Your task to perform on an android device: toggle sleep mode Image 0: 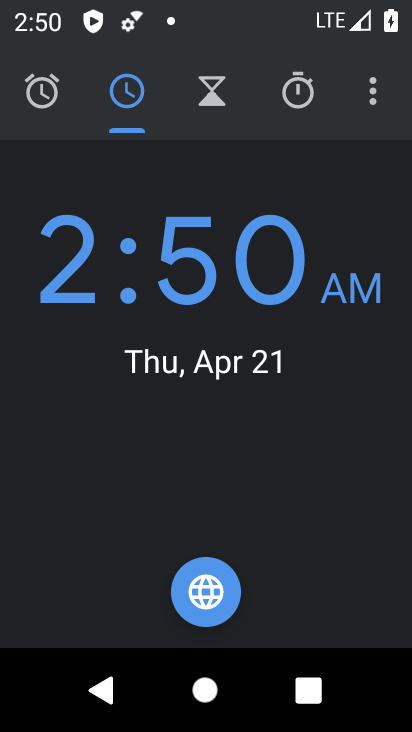
Step 0: press home button
Your task to perform on an android device: toggle sleep mode Image 1: 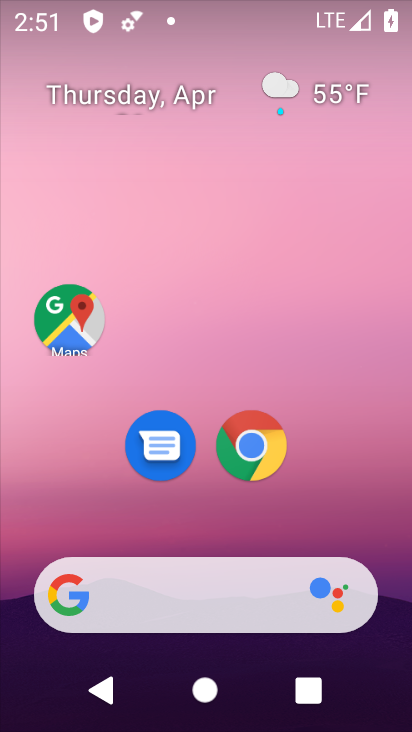
Step 1: drag from (280, 502) to (286, 40)
Your task to perform on an android device: toggle sleep mode Image 2: 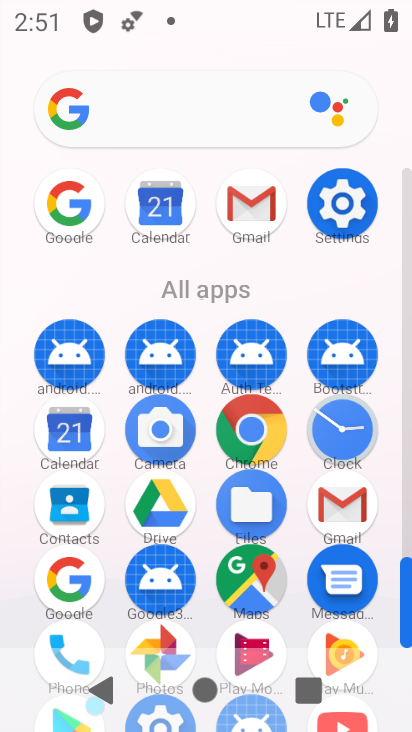
Step 2: click (347, 207)
Your task to perform on an android device: toggle sleep mode Image 3: 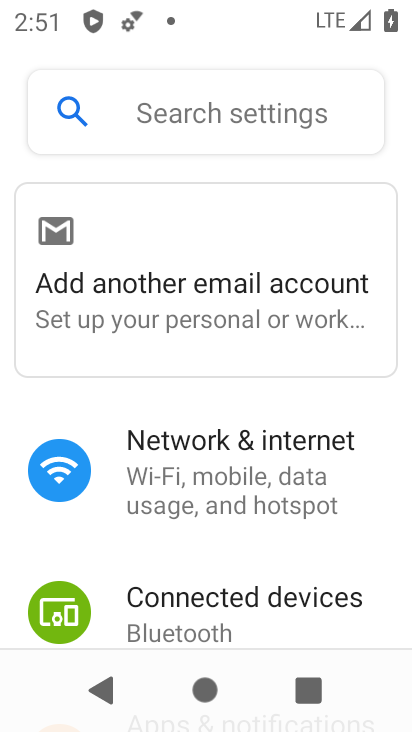
Step 3: drag from (231, 544) to (267, 413)
Your task to perform on an android device: toggle sleep mode Image 4: 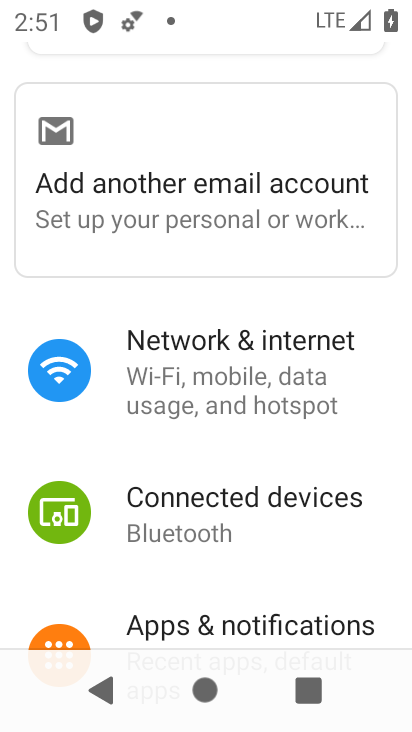
Step 4: drag from (234, 563) to (280, 415)
Your task to perform on an android device: toggle sleep mode Image 5: 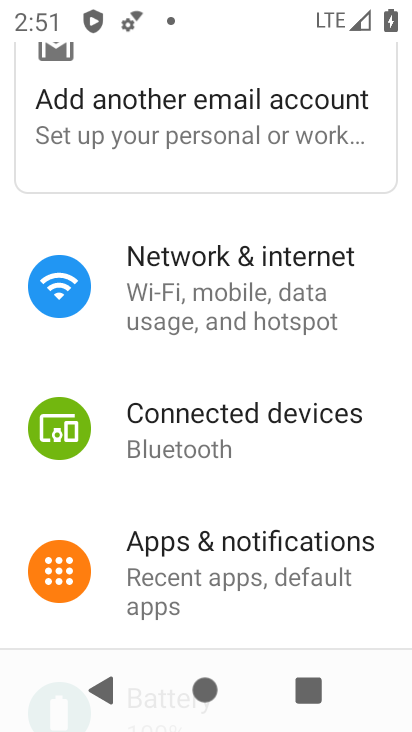
Step 5: drag from (232, 604) to (288, 465)
Your task to perform on an android device: toggle sleep mode Image 6: 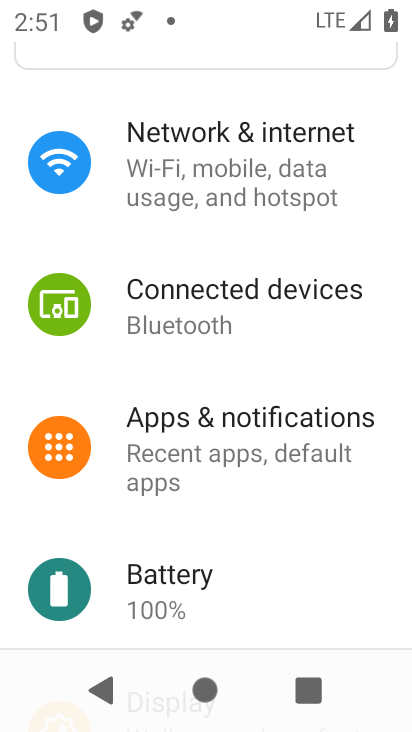
Step 6: drag from (242, 575) to (304, 436)
Your task to perform on an android device: toggle sleep mode Image 7: 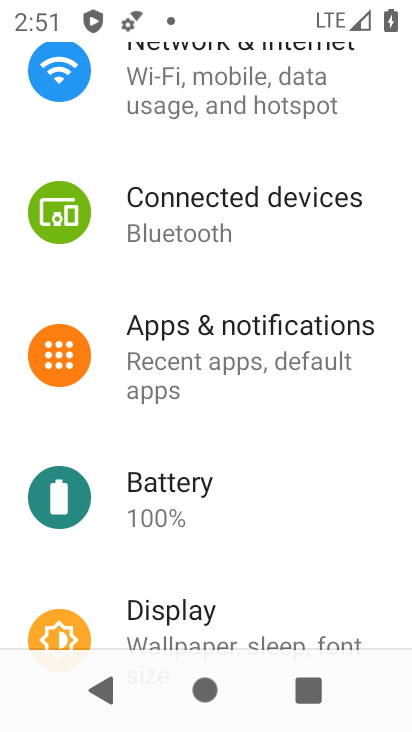
Step 7: drag from (252, 556) to (326, 440)
Your task to perform on an android device: toggle sleep mode Image 8: 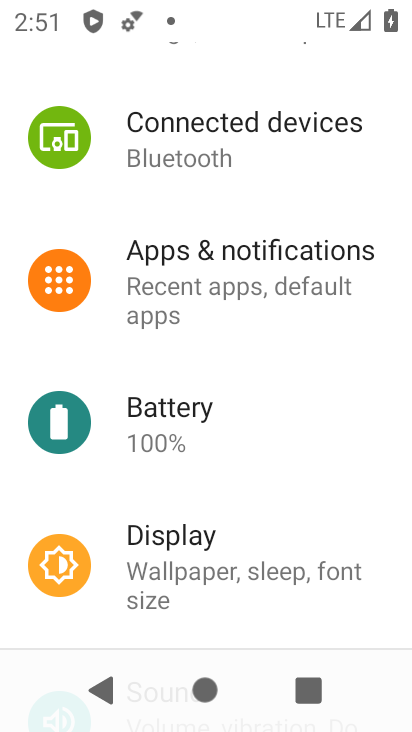
Step 8: drag from (258, 621) to (316, 478)
Your task to perform on an android device: toggle sleep mode Image 9: 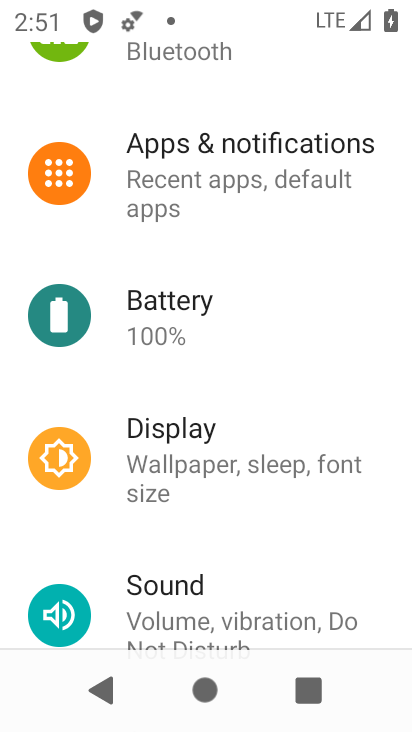
Step 9: click (268, 462)
Your task to perform on an android device: toggle sleep mode Image 10: 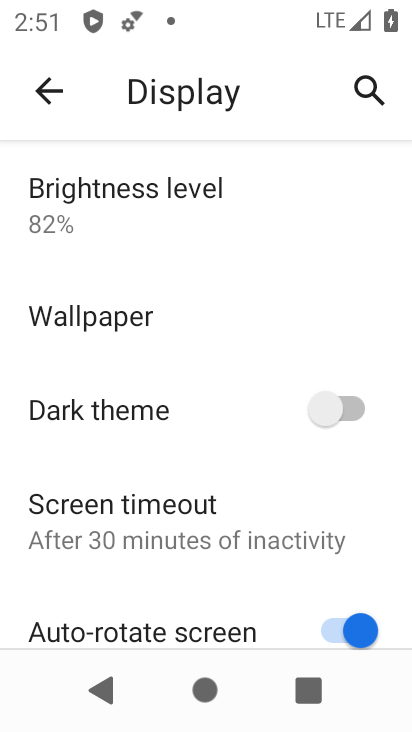
Step 10: drag from (173, 518) to (202, 392)
Your task to perform on an android device: toggle sleep mode Image 11: 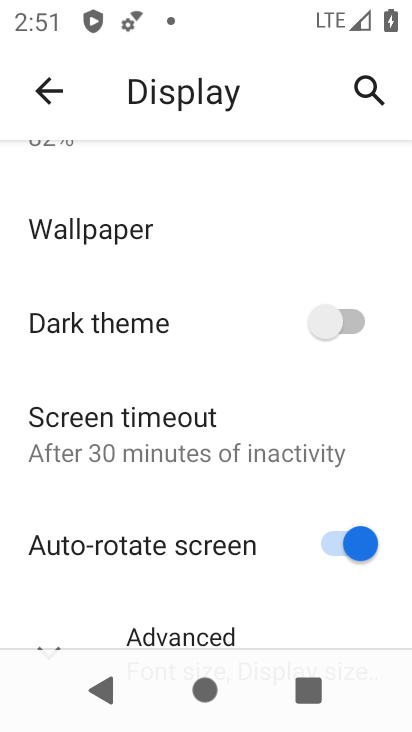
Step 11: click (191, 440)
Your task to perform on an android device: toggle sleep mode Image 12: 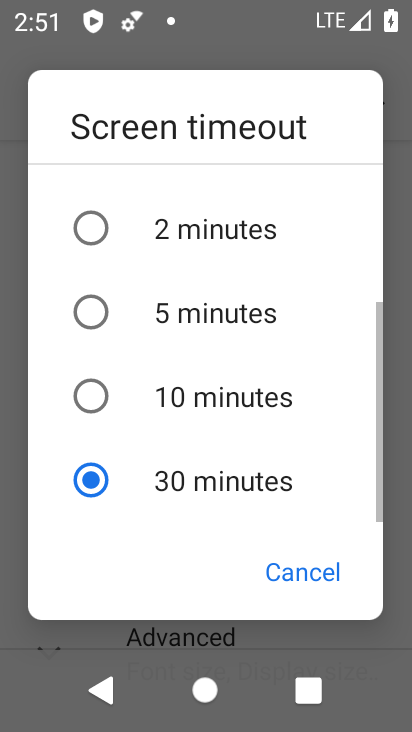
Step 12: drag from (215, 271) to (223, 495)
Your task to perform on an android device: toggle sleep mode Image 13: 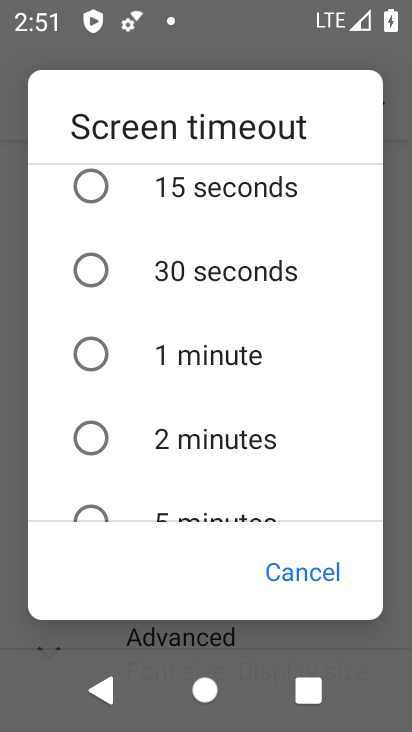
Step 13: drag from (236, 252) to (245, 522)
Your task to perform on an android device: toggle sleep mode Image 14: 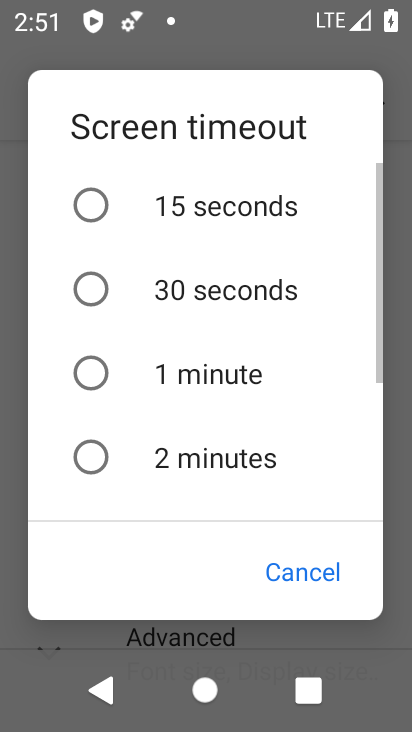
Step 14: drag from (251, 260) to (251, 551)
Your task to perform on an android device: toggle sleep mode Image 15: 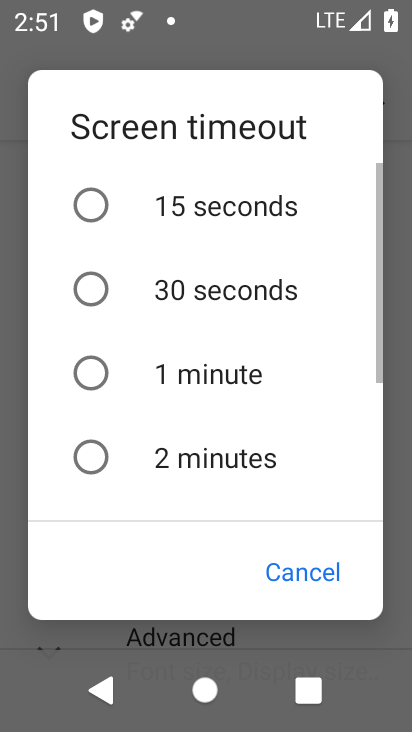
Step 15: click (302, 563)
Your task to perform on an android device: toggle sleep mode Image 16: 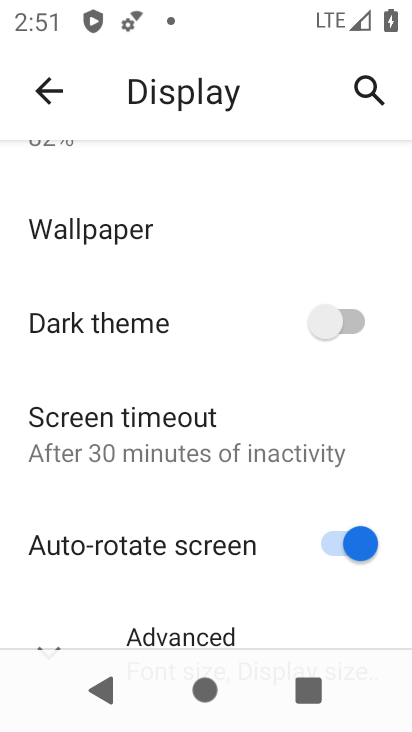
Step 16: drag from (208, 561) to (264, 369)
Your task to perform on an android device: toggle sleep mode Image 17: 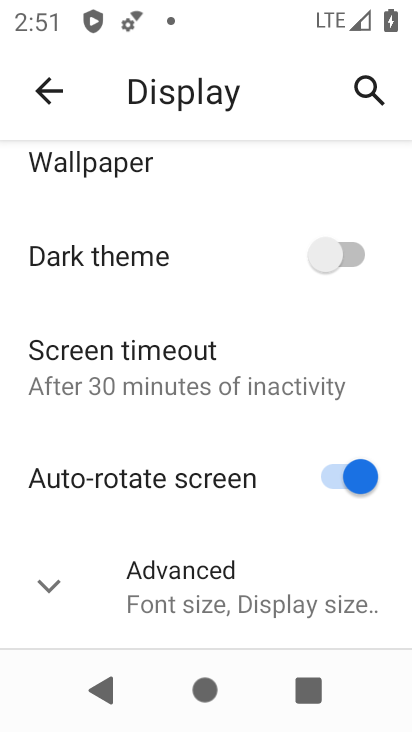
Step 17: click (223, 593)
Your task to perform on an android device: toggle sleep mode Image 18: 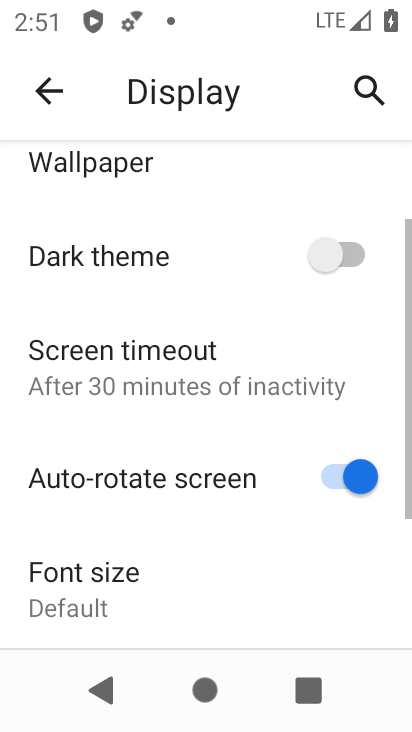
Step 18: task complete